Your task to perform on an android device: Search for Italian restaurants on Maps Image 0: 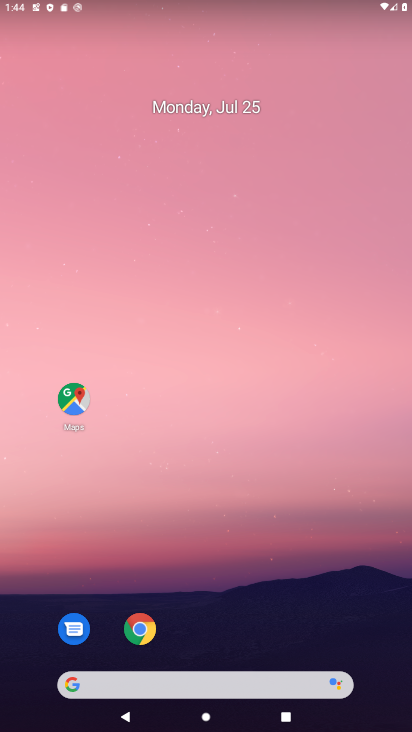
Step 0: drag from (204, 619) to (171, 11)
Your task to perform on an android device: Search for Italian restaurants on Maps Image 1: 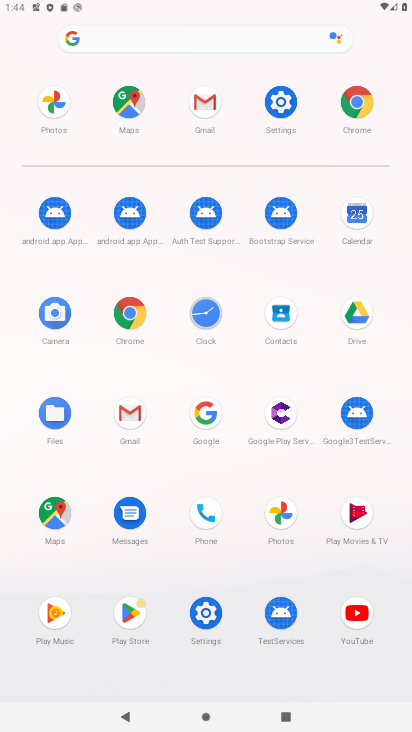
Step 1: click (58, 506)
Your task to perform on an android device: Search for Italian restaurants on Maps Image 2: 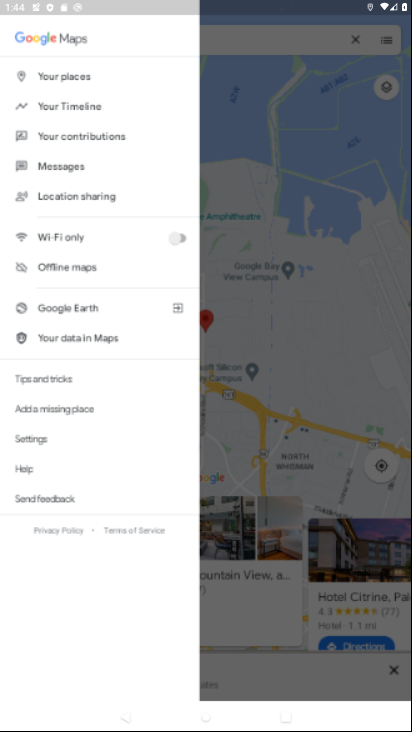
Step 2: drag from (90, 174) to (98, 6)
Your task to perform on an android device: Search for Italian restaurants on Maps Image 3: 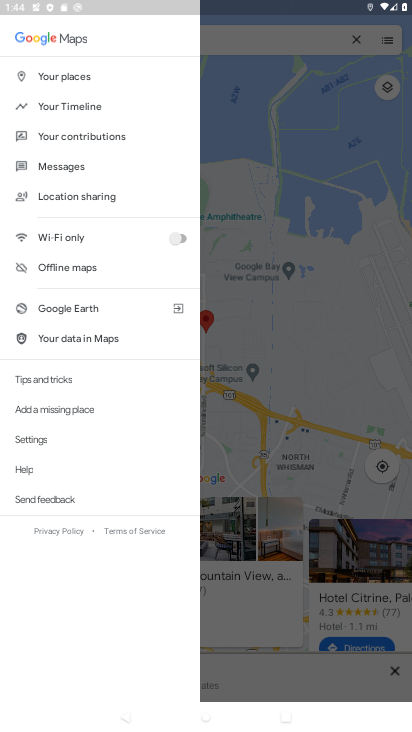
Step 3: drag from (81, 138) to (111, 720)
Your task to perform on an android device: Search for Italian restaurants on Maps Image 4: 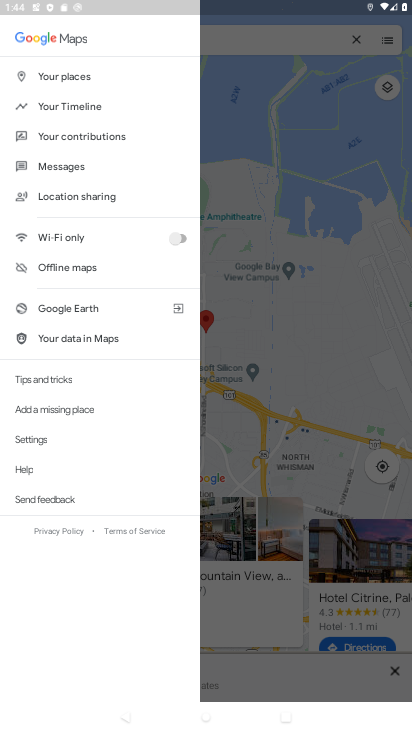
Step 4: click (257, 38)
Your task to perform on an android device: Search for Italian restaurants on Maps Image 5: 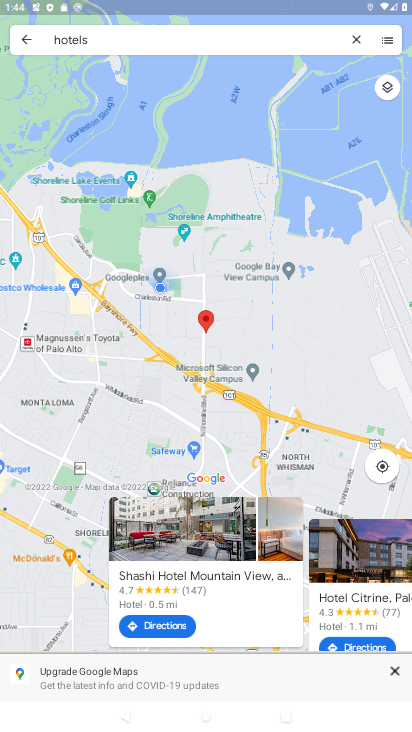
Step 5: click (352, 34)
Your task to perform on an android device: Search for Italian restaurants on Maps Image 6: 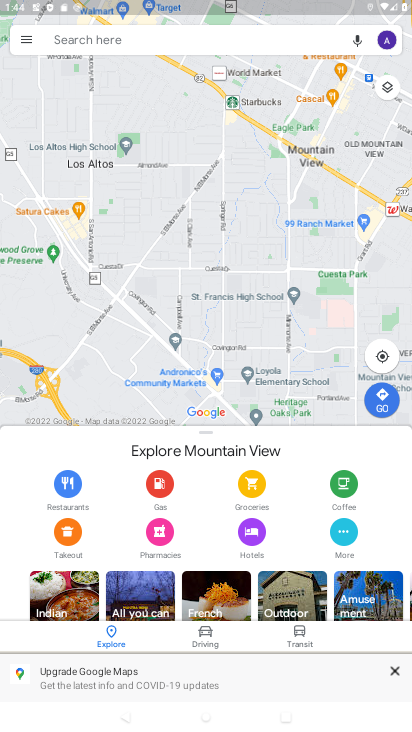
Step 6: click (77, 43)
Your task to perform on an android device: Search for Italian restaurants on Maps Image 7: 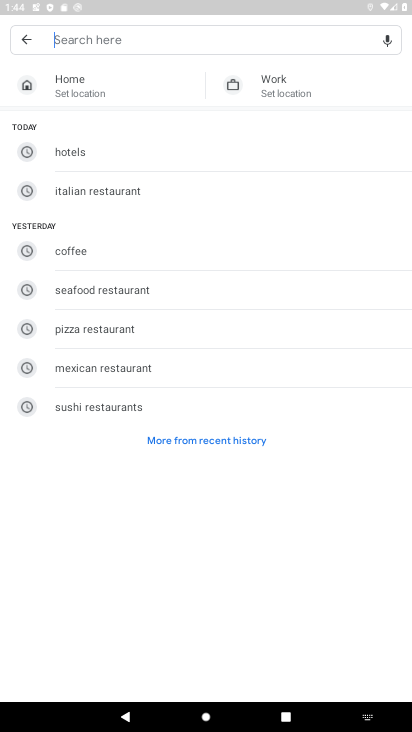
Step 7: type "Italian restaurants"
Your task to perform on an android device: Search for Italian restaurants on Maps Image 8: 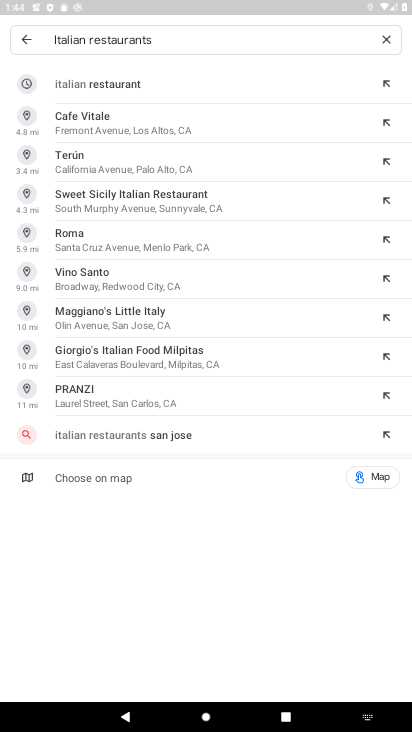
Step 8: click (82, 88)
Your task to perform on an android device: Search for Italian restaurants on Maps Image 9: 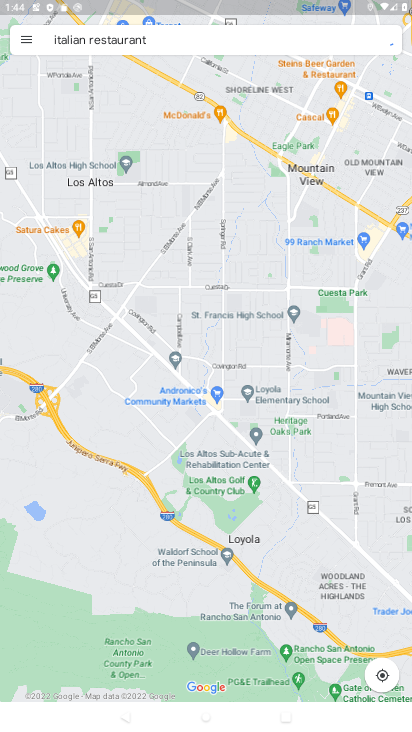
Step 9: task complete